Your task to perform on an android device: Do I have any events tomorrow? Image 0: 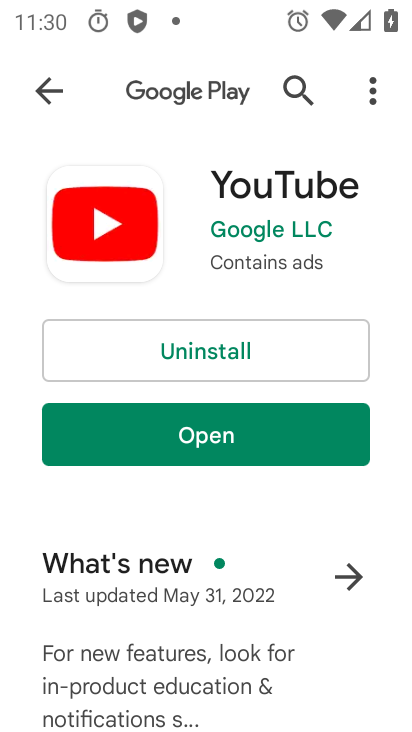
Step 0: press home button
Your task to perform on an android device: Do I have any events tomorrow? Image 1: 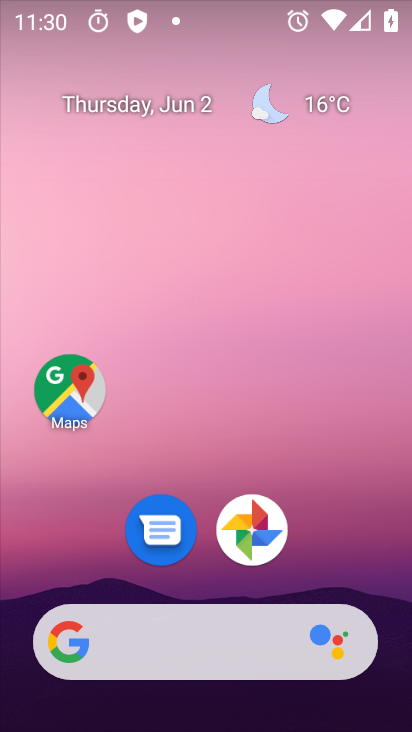
Step 1: drag from (249, 683) to (211, 366)
Your task to perform on an android device: Do I have any events tomorrow? Image 2: 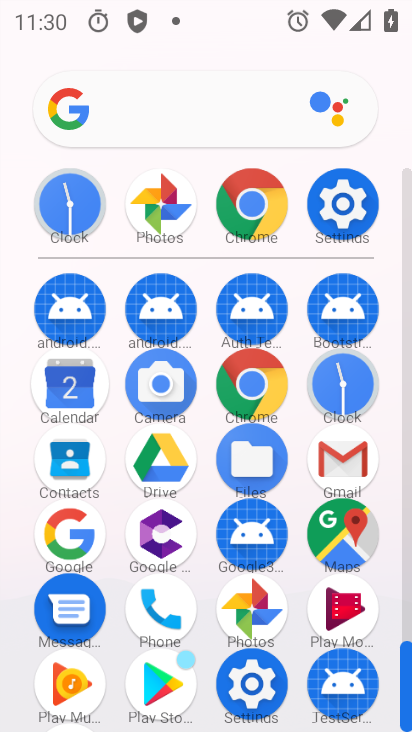
Step 2: click (72, 391)
Your task to perform on an android device: Do I have any events tomorrow? Image 3: 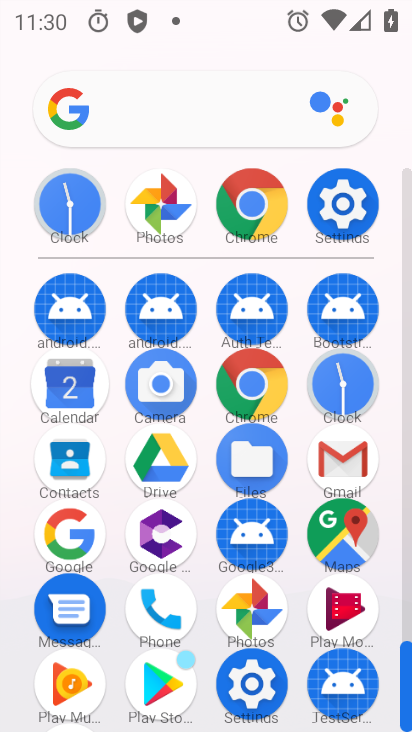
Step 3: click (72, 391)
Your task to perform on an android device: Do I have any events tomorrow? Image 4: 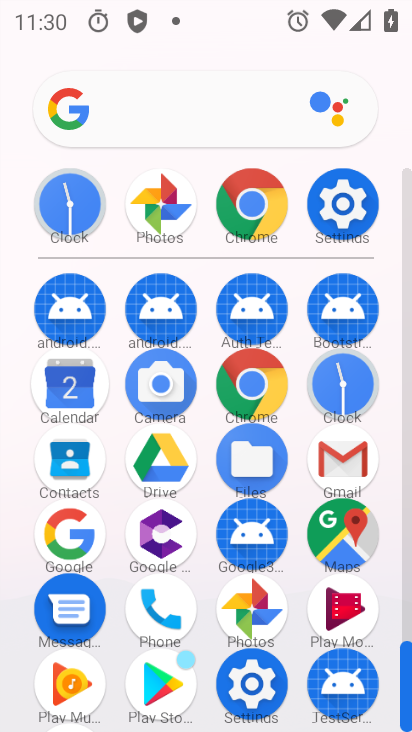
Step 4: click (64, 389)
Your task to perform on an android device: Do I have any events tomorrow? Image 5: 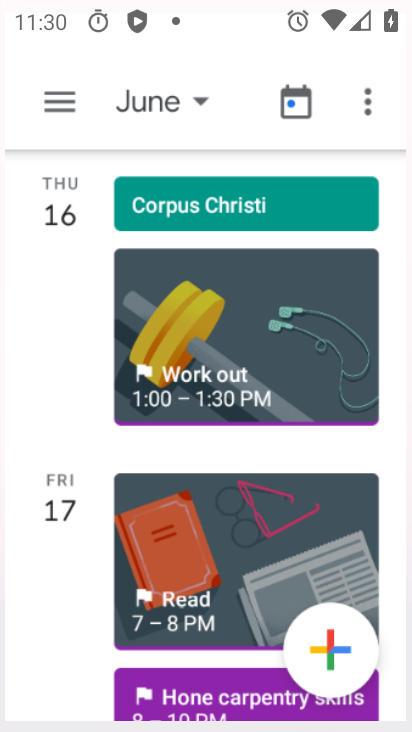
Step 5: click (64, 389)
Your task to perform on an android device: Do I have any events tomorrow? Image 6: 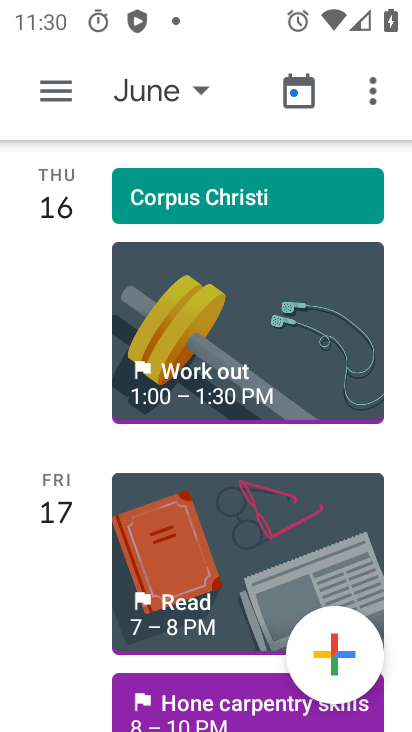
Step 6: click (202, 90)
Your task to perform on an android device: Do I have any events tomorrow? Image 7: 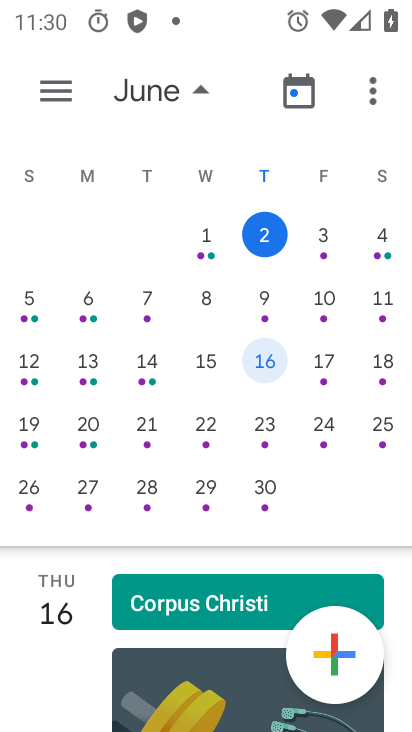
Step 7: click (377, 237)
Your task to perform on an android device: Do I have any events tomorrow? Image 8: 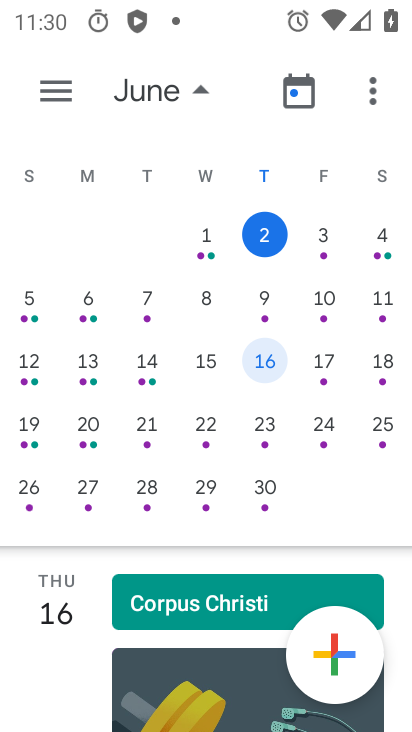
Step 8: click (378, 237)
Your task to perform on an android device: Do I have any events tomorrow? Image 9: 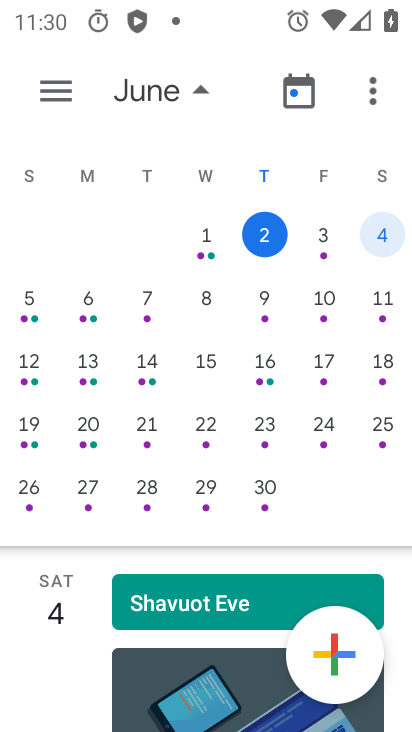
Step 9: click (381, 236)
Your task to perform on an android device: Do I have any events tomorrow? Image 10: 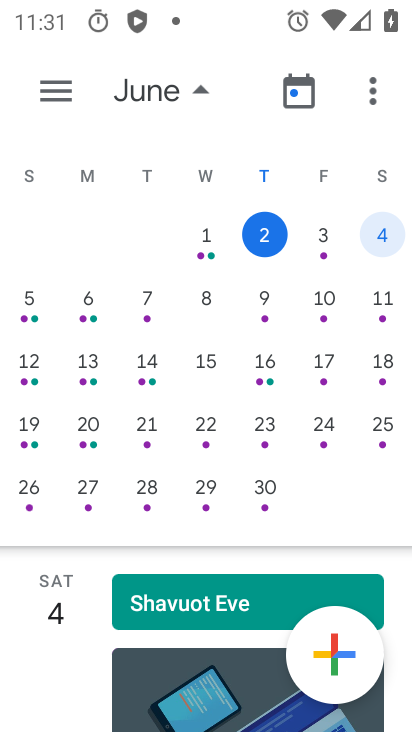
Step 10: task complete